Your task to perform on an android device: Open Maps and search for coffee Image 0: 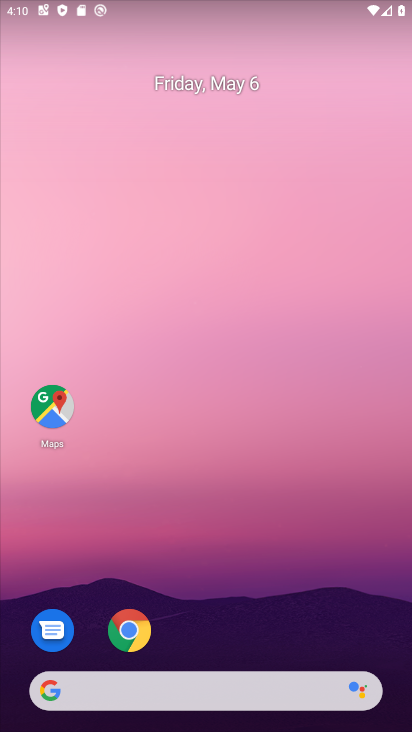
Step 0: click (54, 413)
Your task to perform on an android device: Open Maps and search for coffee Image 1: 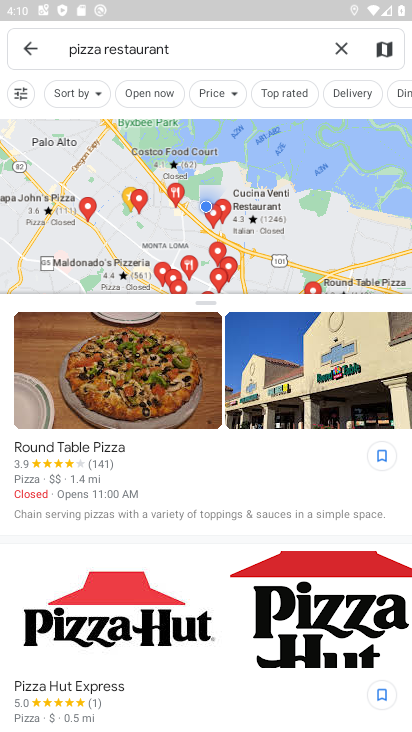
Step 1: click (344, 42)
Your task to perform on an android device: Open Maps and search for coffee Image 2: 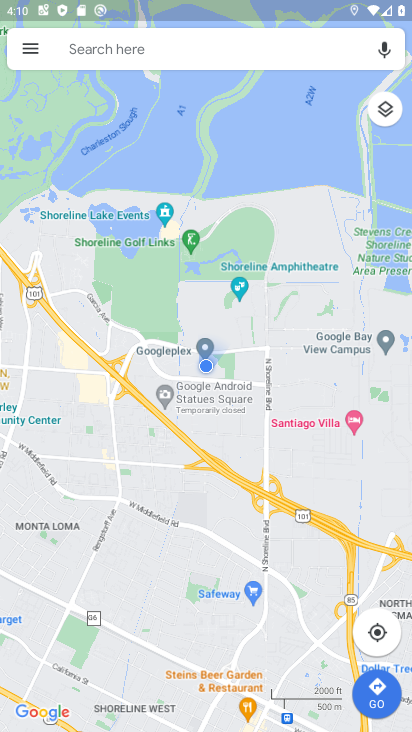
Step 2: click (189, 54)
Your task to perform on an android device: Open Maps and search for coffee Image 3: 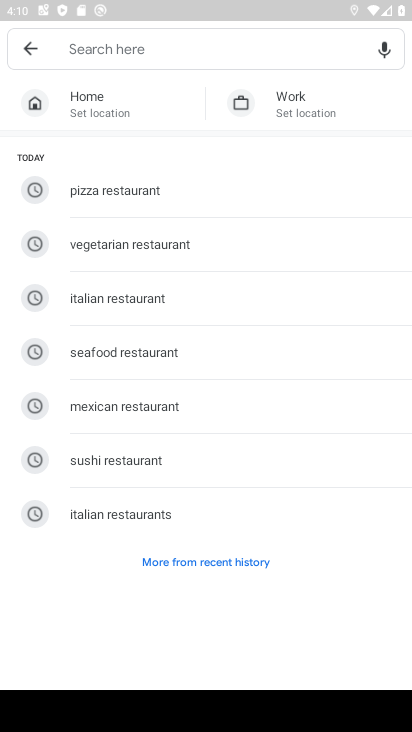
Step 3: click (131, 48)
Your task to perform on an android device: Open Maps and search for coffee Image 4: 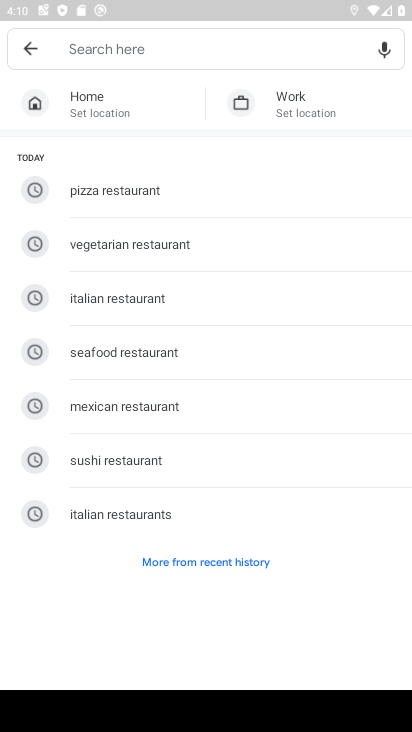
Step 4: type "coffee"
Your task to perform on an android device: Open Maps and search for coffee Image 5: 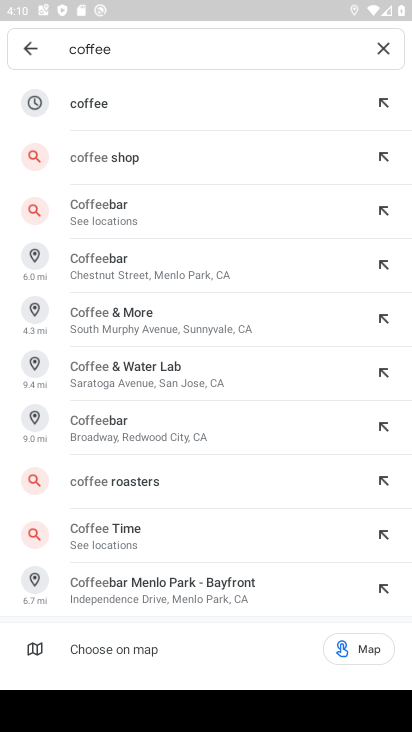
Step 5: click (115, 100)
Your task to perform on an android device: Open Maps and search for coffee Image 6: 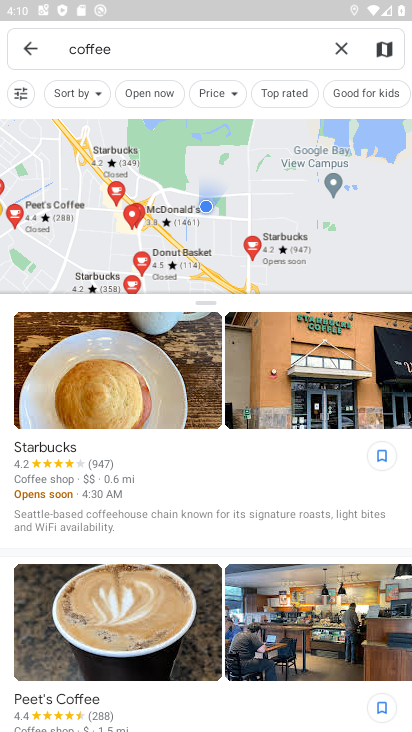
Step 6: task complete